Your task to perform on an android device: add a label to a message in the gmail app Image 0: 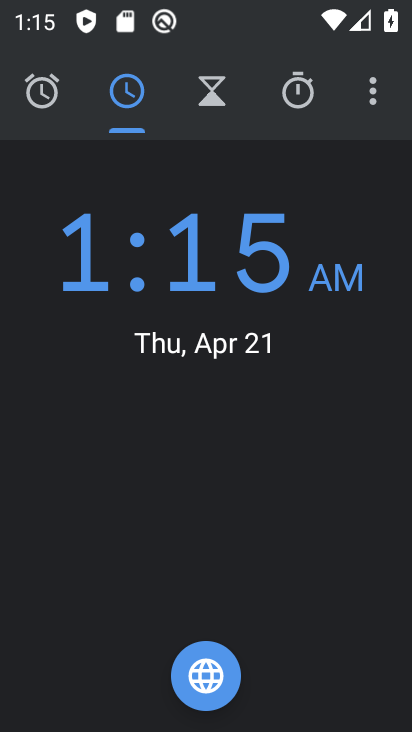
Step 0: press home button
Your task to perform on an android device: add a label to a message in the gmail app Image 1: 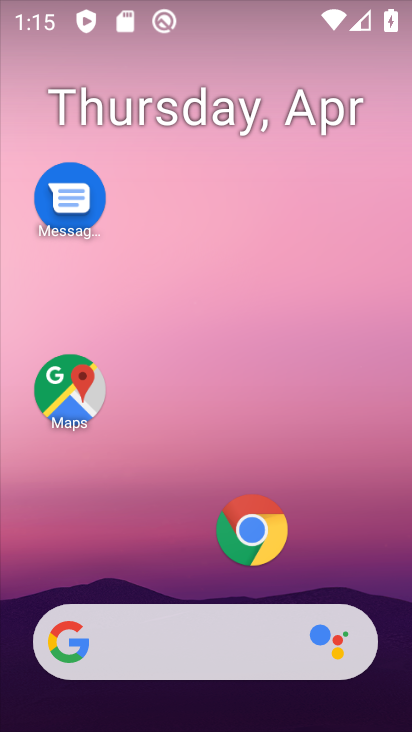
Step 1: drag from (238, 595) to (251, 27)
Your task to perform on an android device: add a label to a message in the gmail app Image 2: 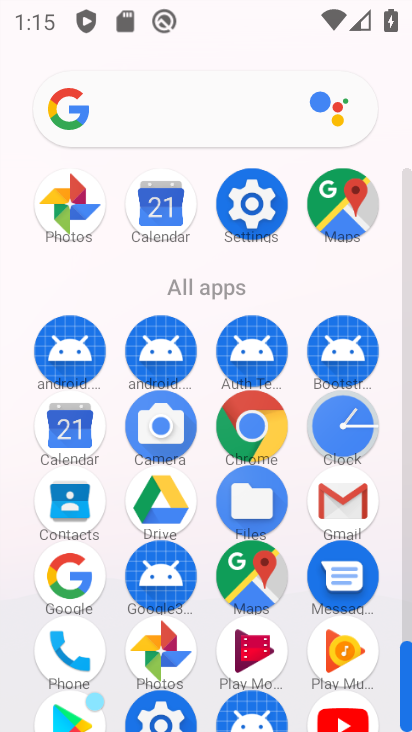
Step 2: click (349, 518)
Your task to perform on an android device: add a label to a message in the gmail app Image 3: 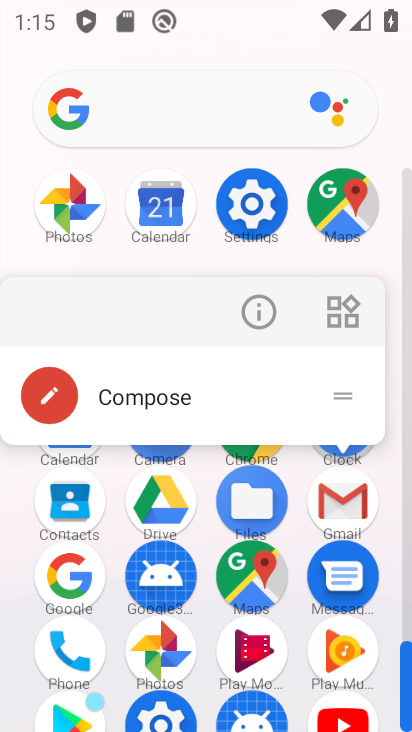
Step 3: click (342, 516)
Your task to perform on an android device: add a label to a message in the gmail app Image 4: 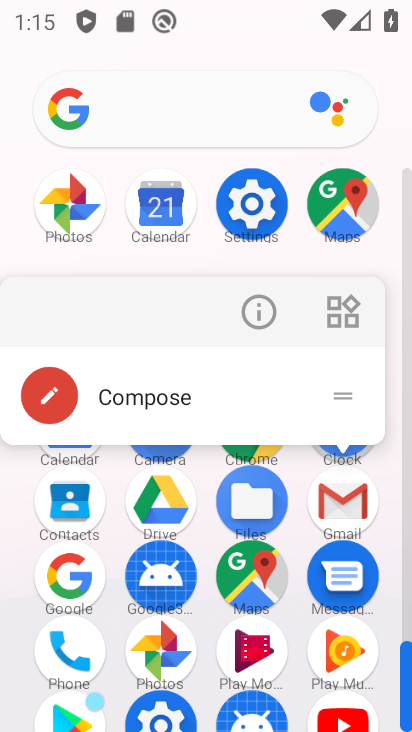
Step 4: click (359, 499)
Your task to perform on an android device: add a label to a message in the gmail app Image 5: 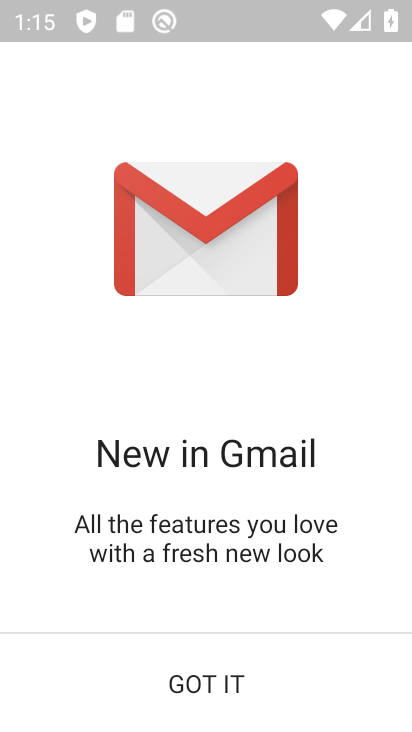
Step 5: click (146, 675)
Your task to perform on an android device: add a label to a message in the gmail app Image 6: 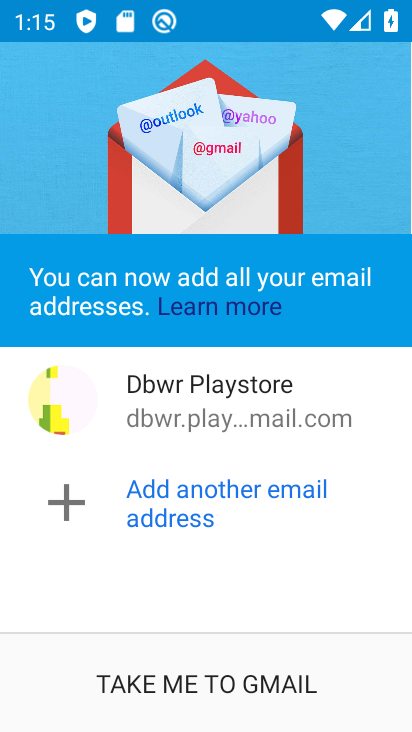
Step 6: click (151, 680)
Your task to perform on an android device: add a label to a message in the gmail app Image 7: 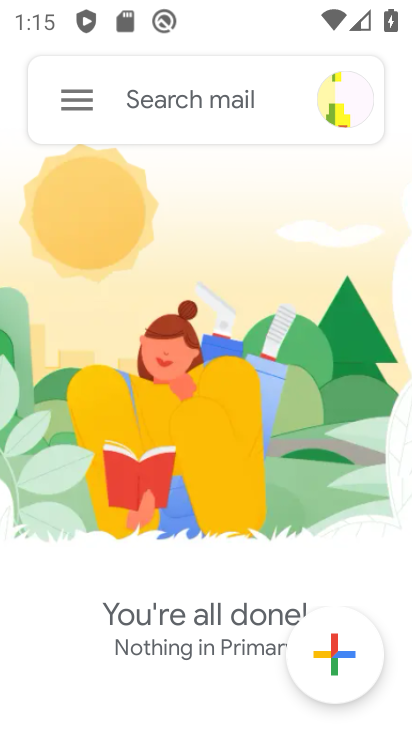
Step 7: task complete